Your task to perform on an android device: toggle wifi Image 0: 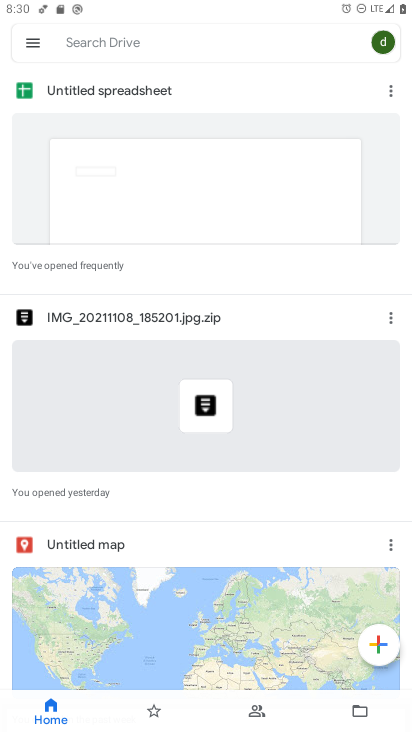
Step 0: press home button
Your task to perform on an android device: toggle wifi Image 1: 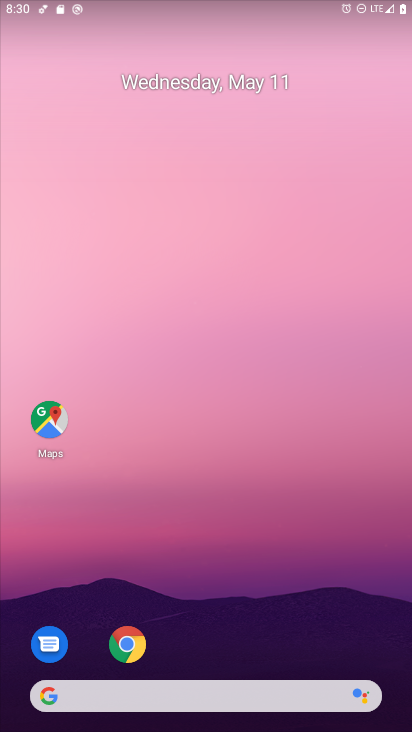
Step 1: drag from (228, 590) to (137, 82)
Your task to perform on an android device: toggle wifi Image 2: 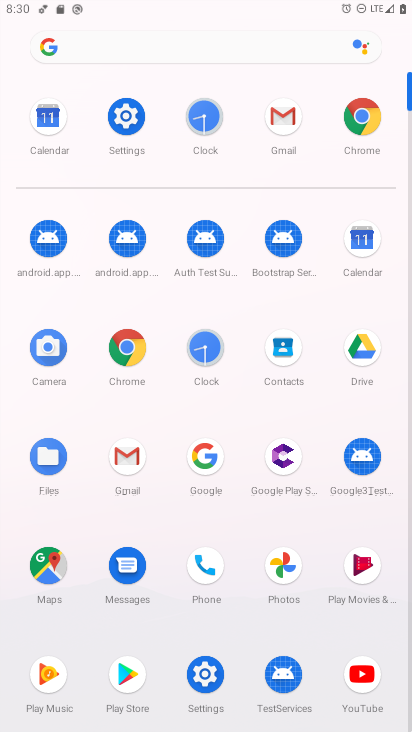
Step 2: click (123, 118)
Your task to perform on an android device: toggle wifi Image 3: 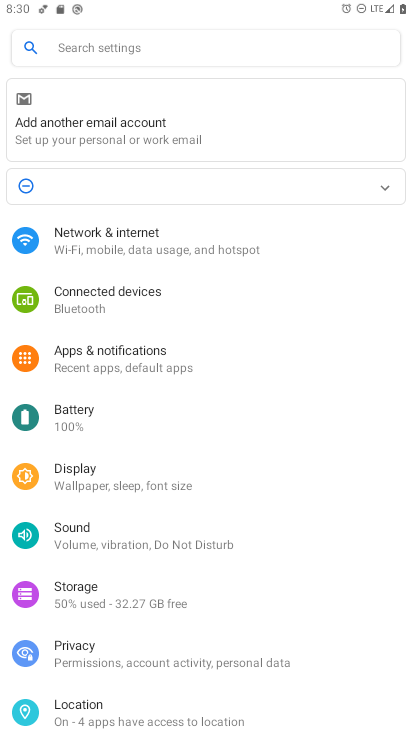
Step 3: click (114, 239)
Your task to perform on an android device: toggle wifi Image 4: 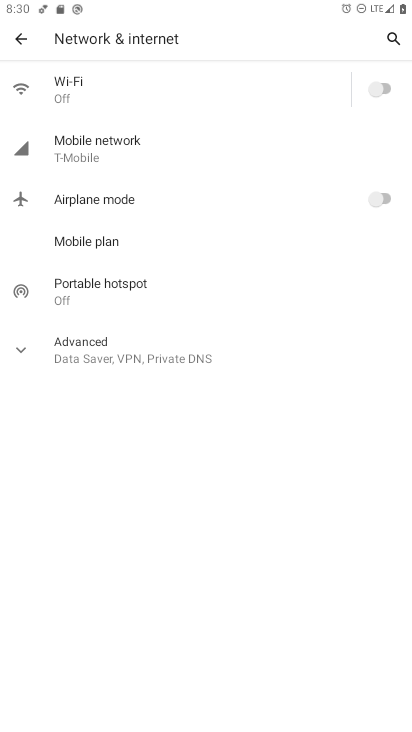
Step 4: click (379, 86)
Your task to perform on an android device: toggle wifi Image 5: 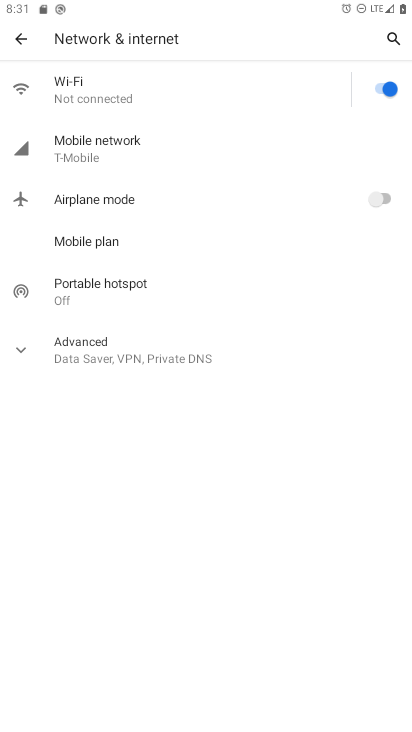
Step 5: task complete